Your task to perform on an android device: Open ESPN.com Image 0: 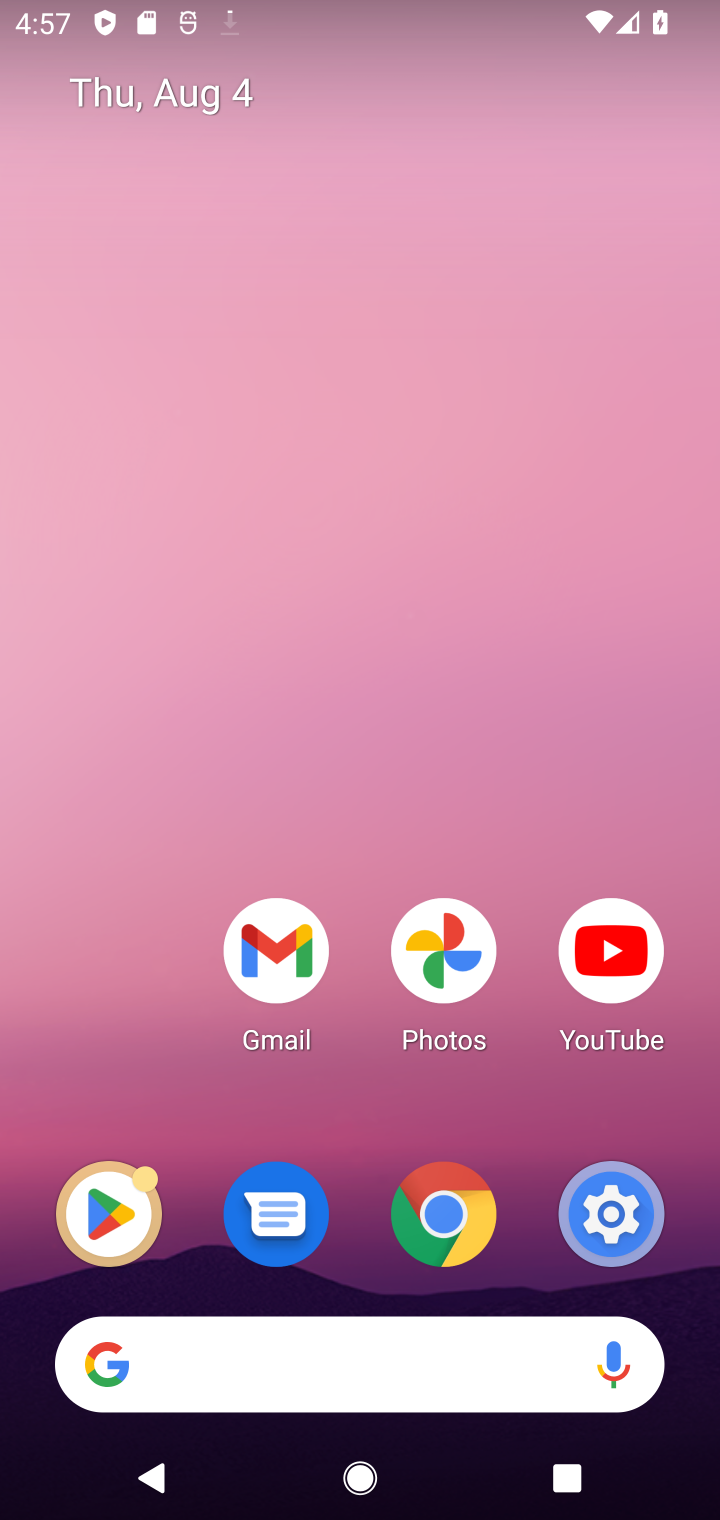
Step 0: click (435, 1212)
Your task to perform on an android device: Open ESPN.com Image 1: 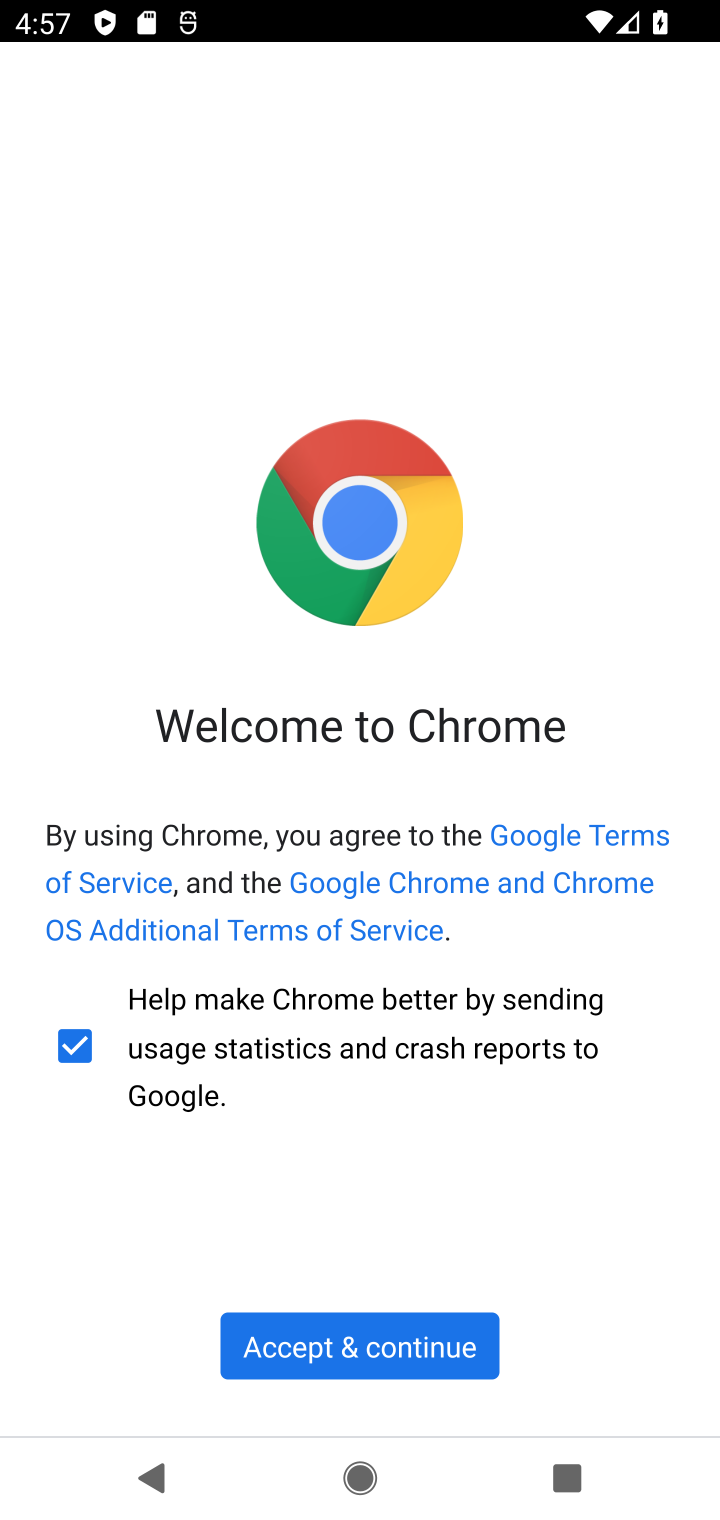
Step 1: click (460, 1346)
Your task to perform on an android device: Open ESPN.com Image 2: 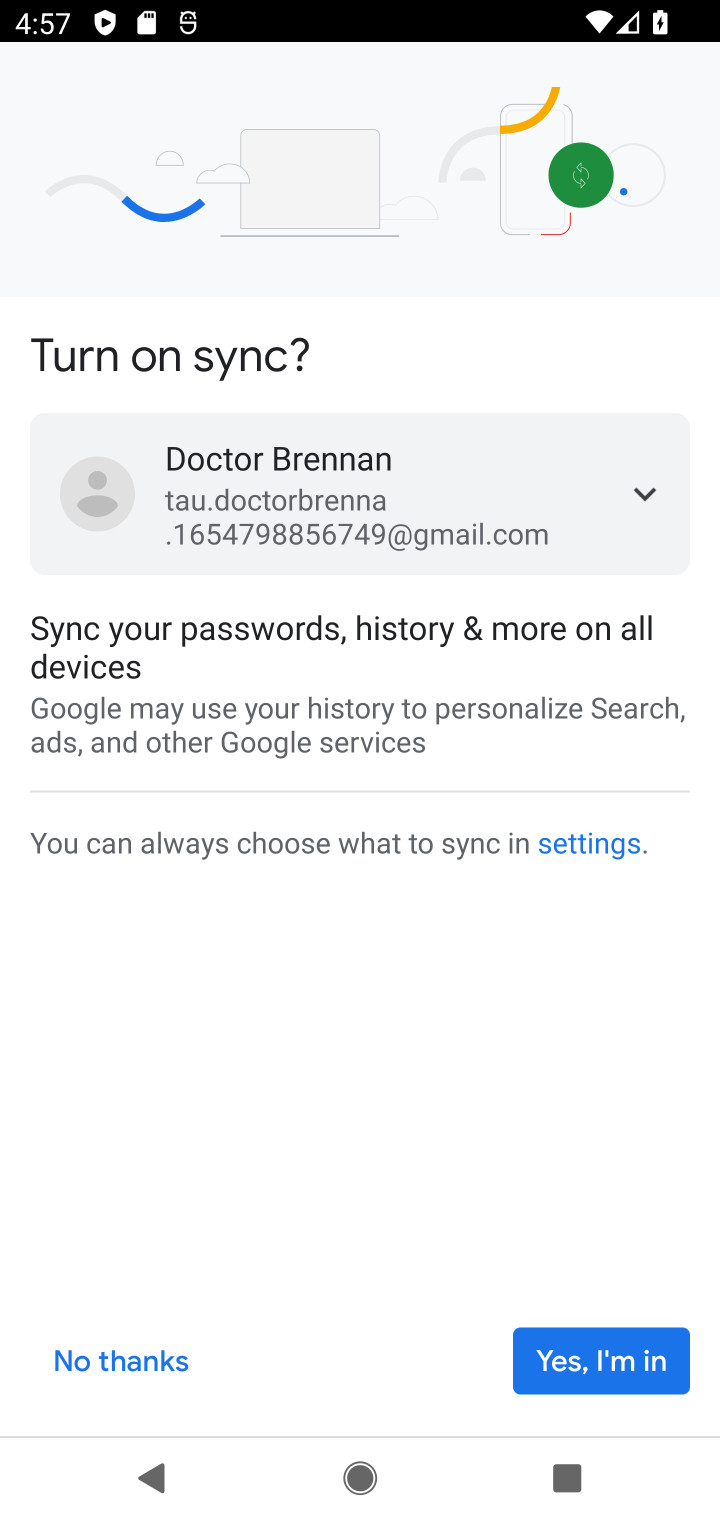
Step 2: click (612, 1344)
Your task to perform on an android device: Open ESPN.com Image 3: 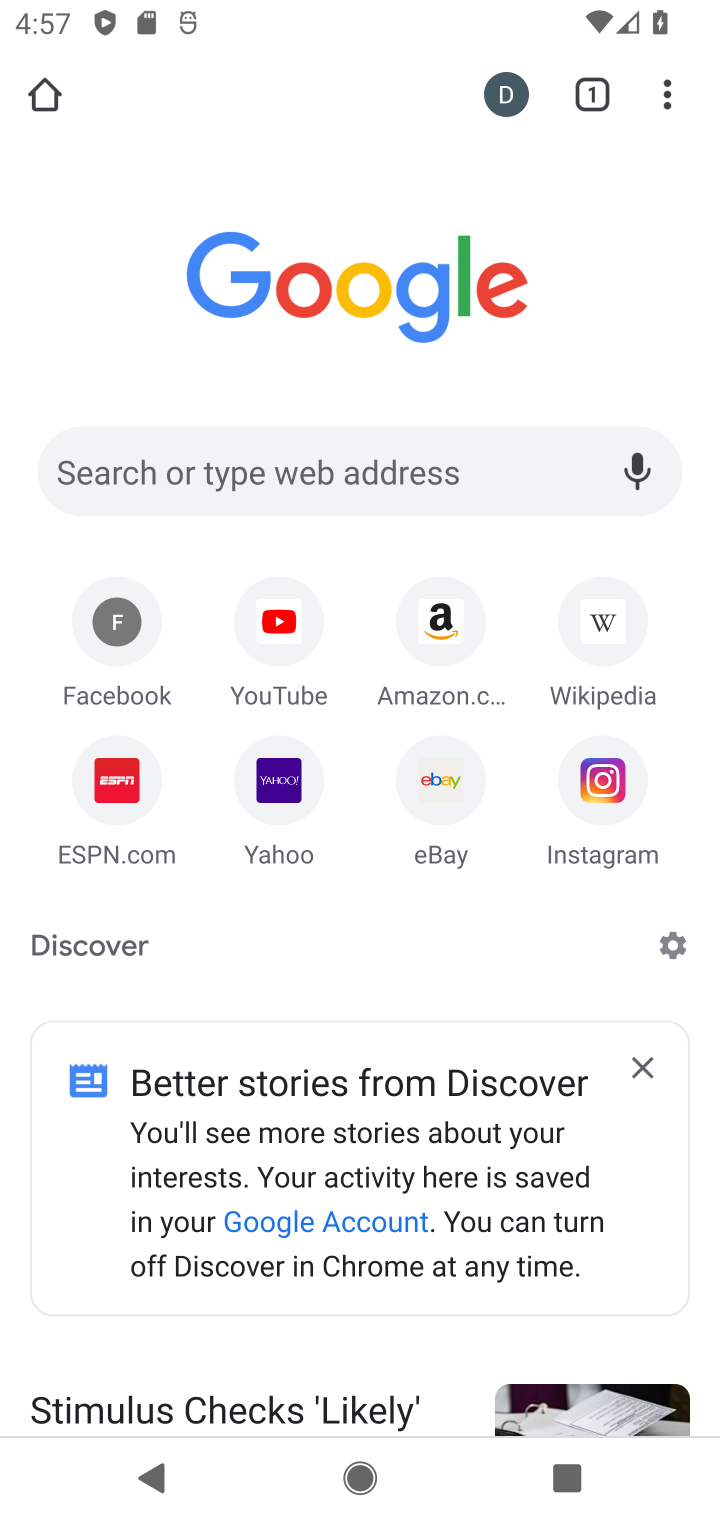
Step 3: click (111, 783)
Your task to perform on an android device: Open ESPN.com Image 4: 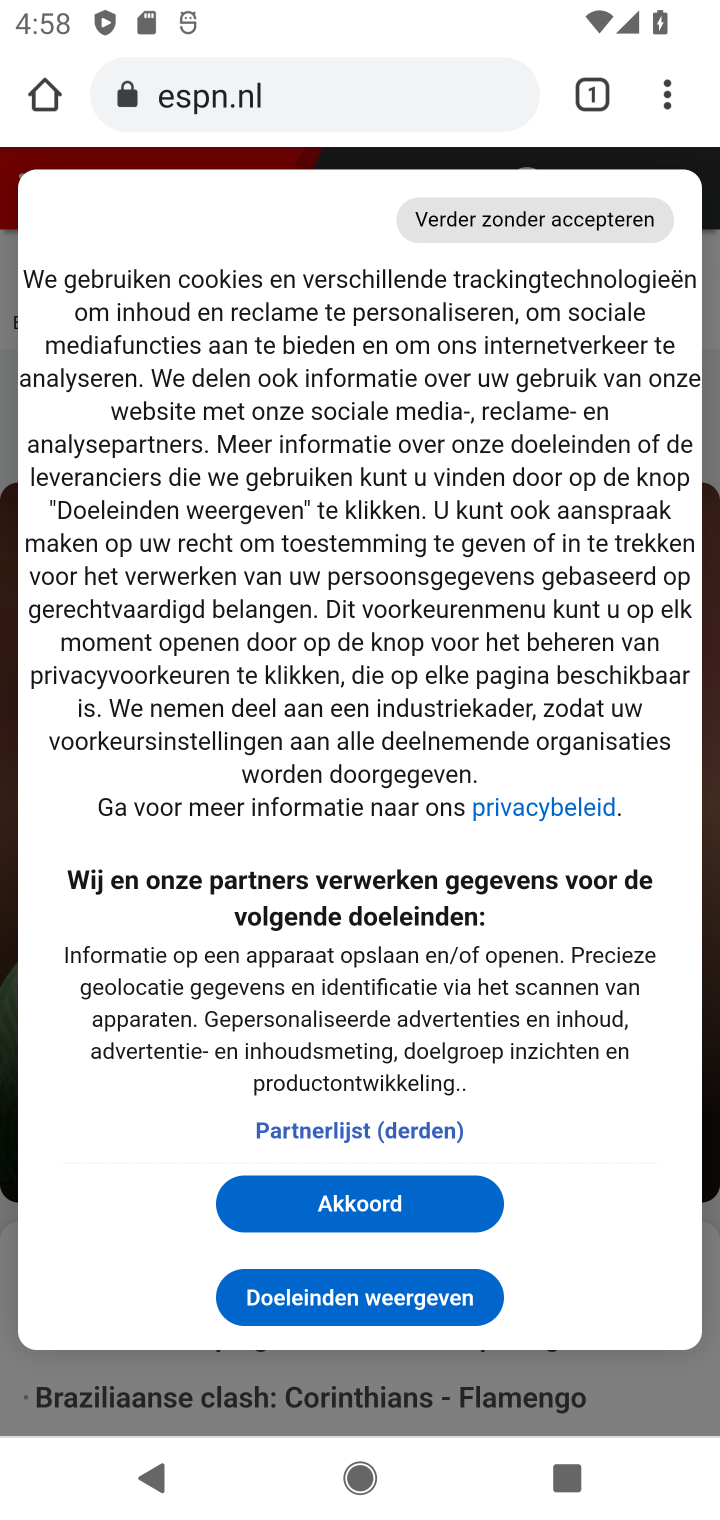
Step 4: task complete